Your task to perform on an android device: Open the web browser Image 0: 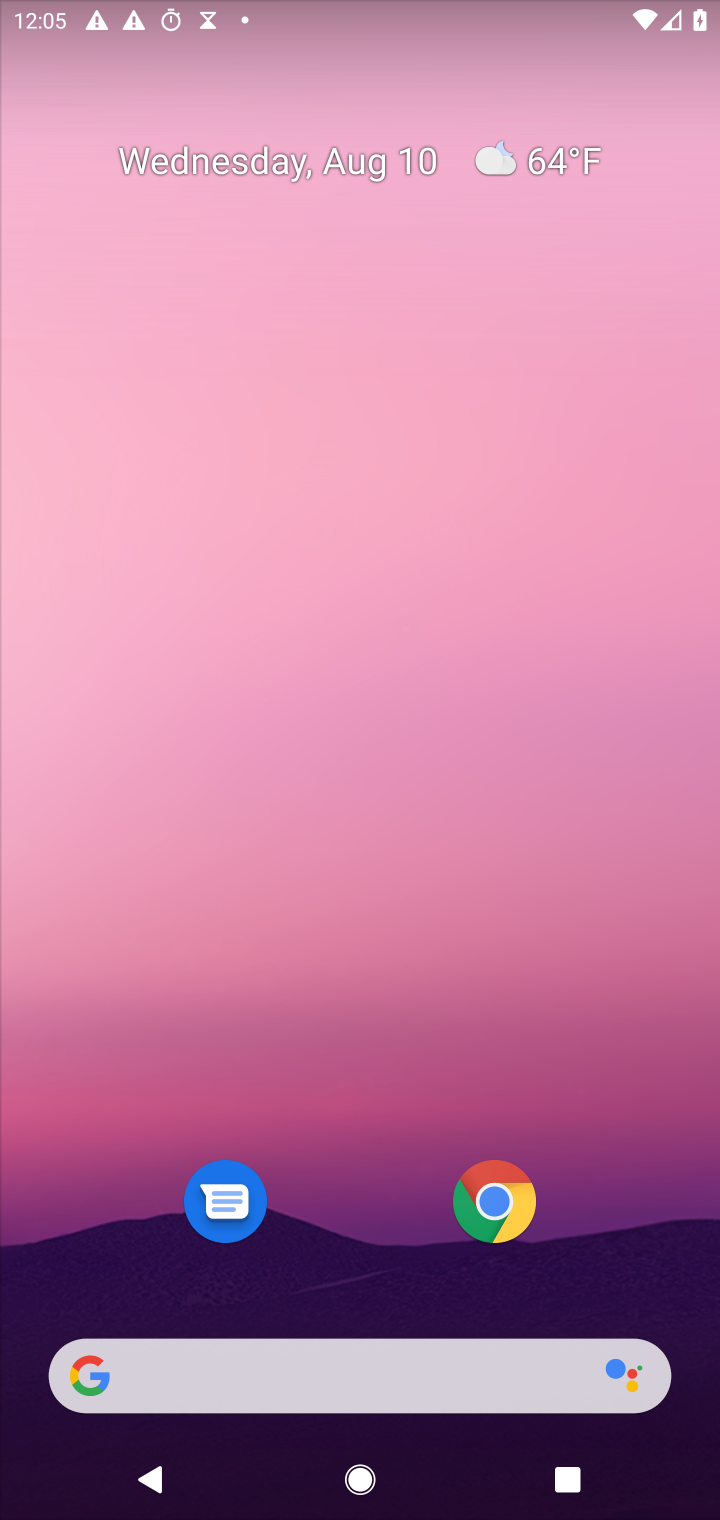
Step 0: drag from (362, 931) to (348, 125)
Your task to perform on an android device: Open the web browser Image 1: 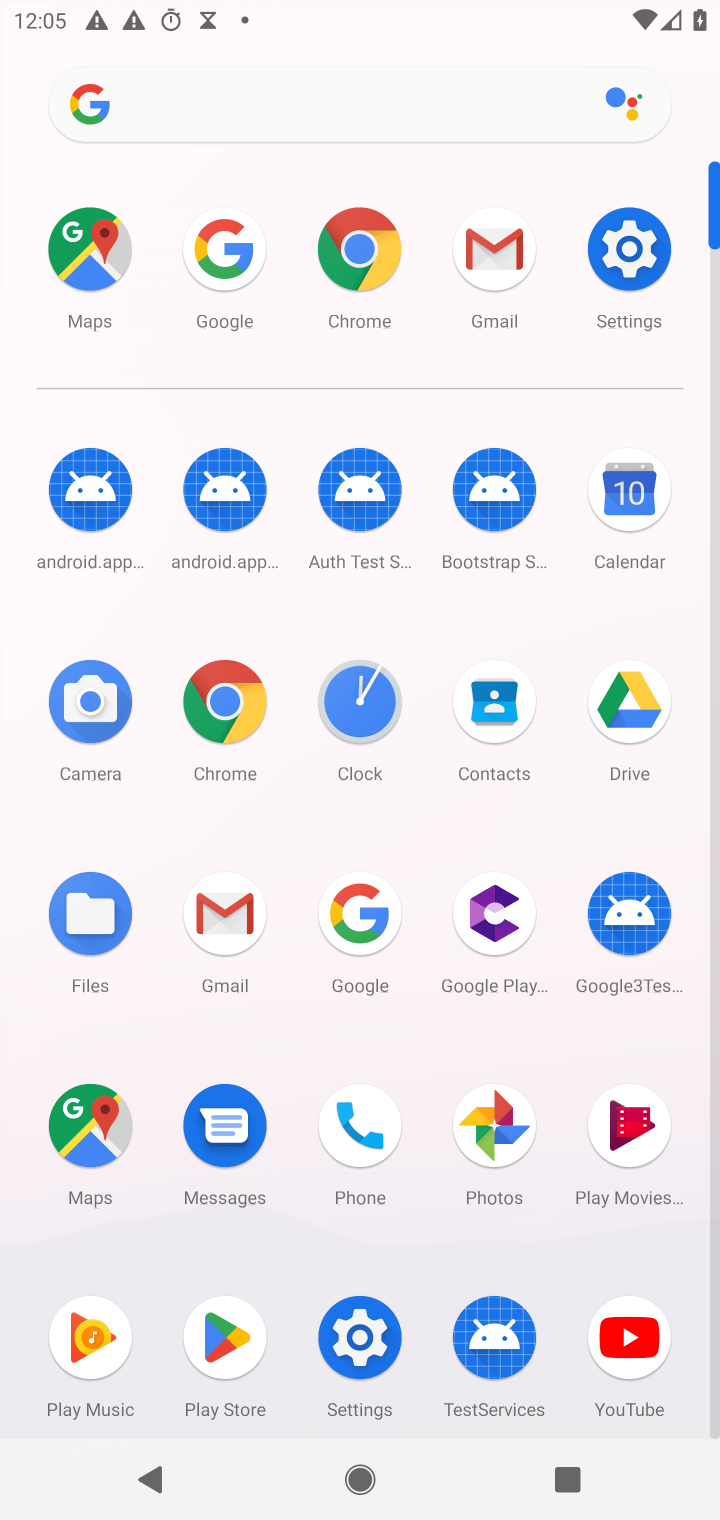
Step 1: click (234, 259)
Your task to perform on an android device: Open the web browser Image 2: 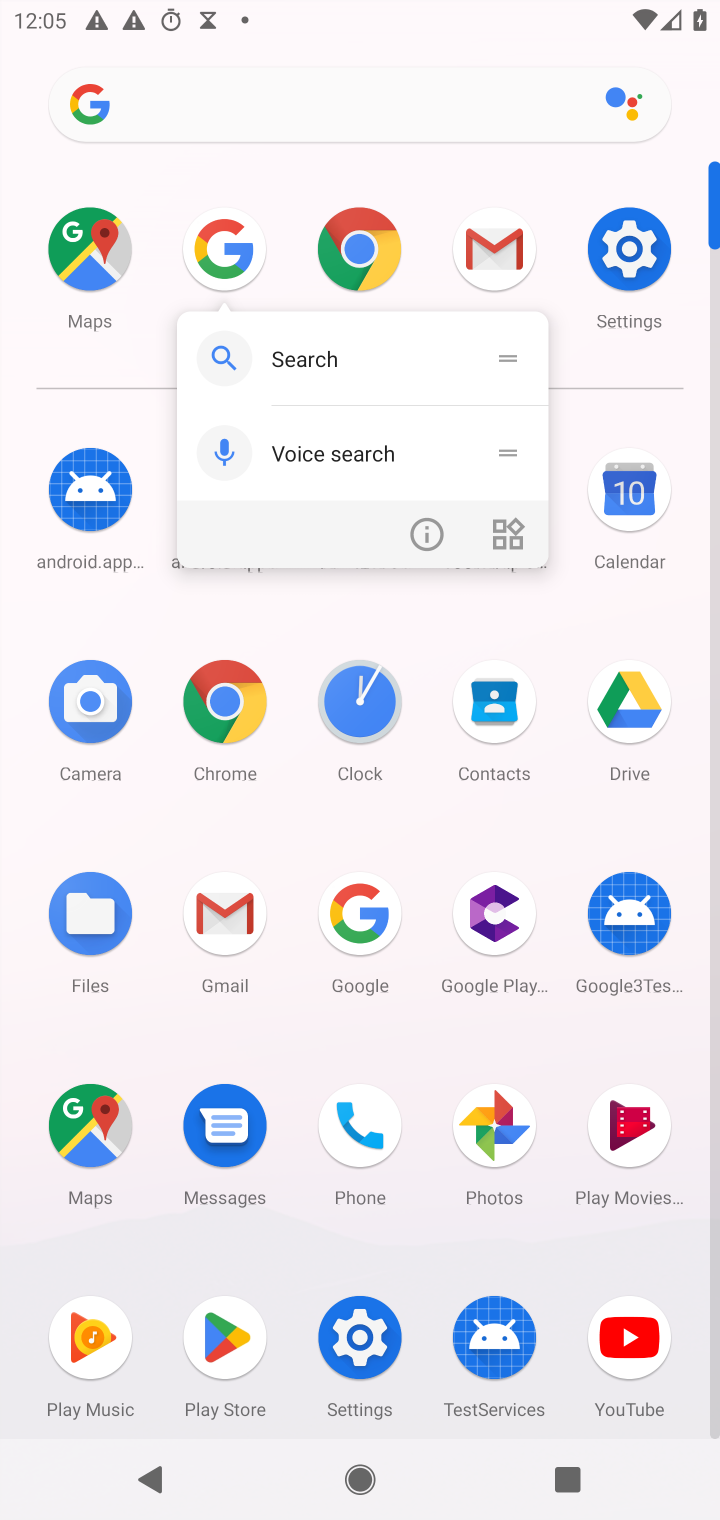
Step 2: click (216, 219)
Your task to perform on an android device: Open the web browser Image 3: 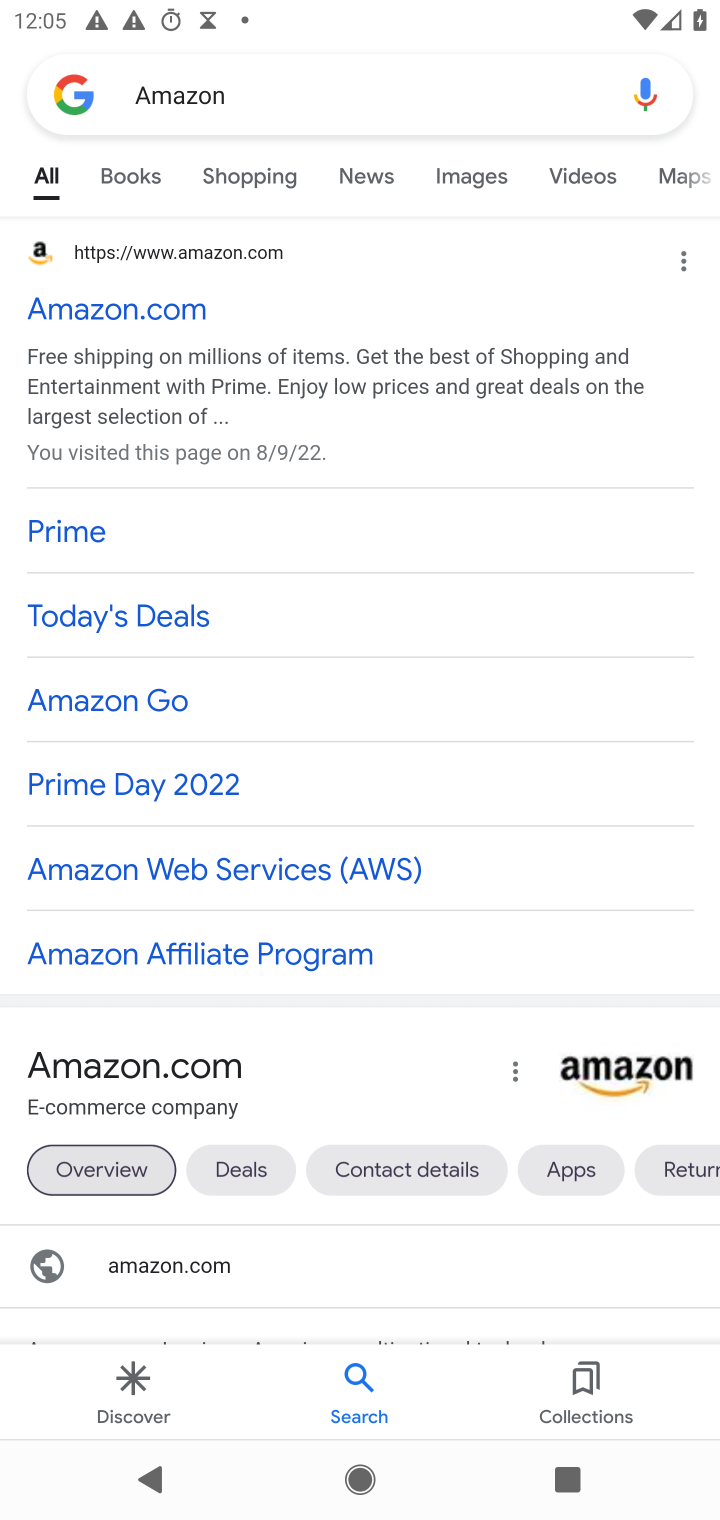
Step 3: click (73, 89)
Your task to perform on an android device: Open the web browser Image 4: 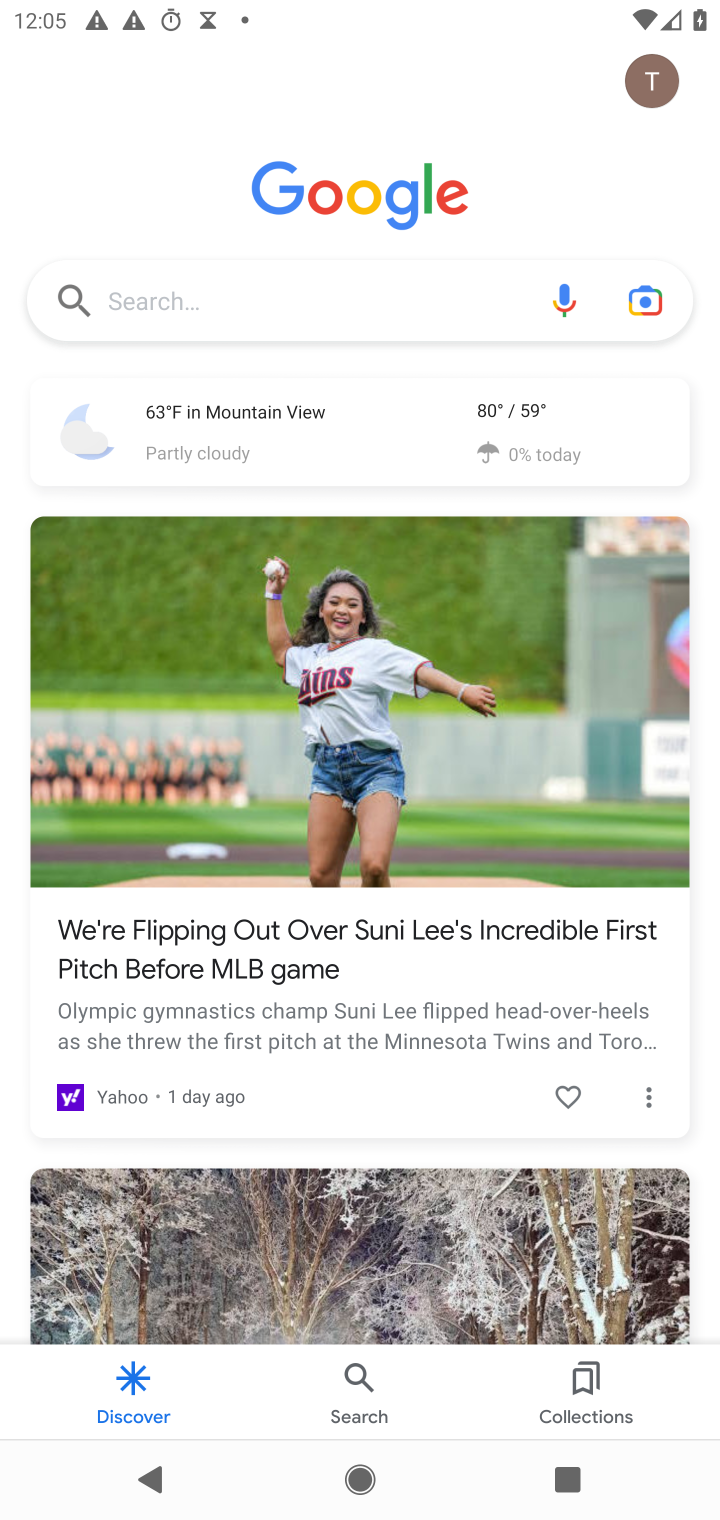
Step 4: task complete